Your task to perform on an android device: Open Google Maps and go to "Timeline" Image 0: 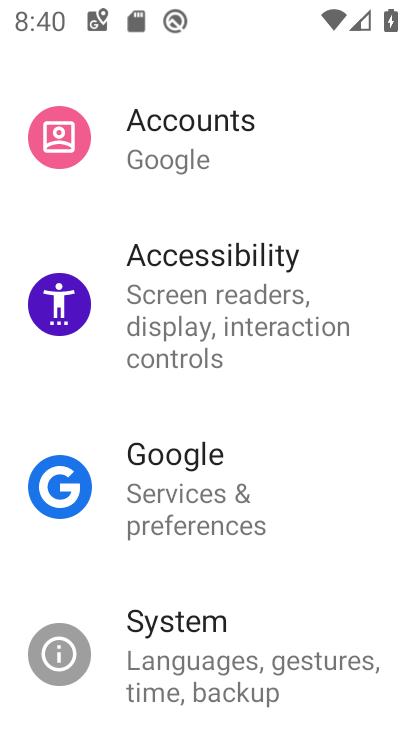
Step 0: drag from (204, 633) to (273, 64)
Your task to perform on an android device: Open Google Maps and go to "Timeline" Image 1: 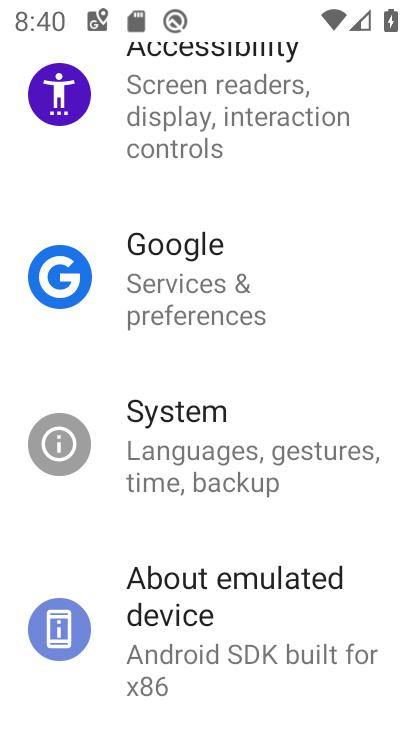
Step 1: press back button
Your task to perform on an android device: Open Google Maps and go to "Timeline" Image 2: 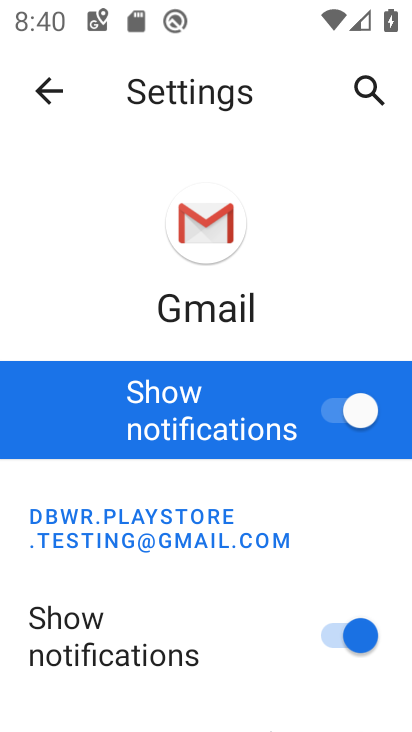
Step 2: press back button
Your task to perform on an android device: Open Google Maps and go to "Timeline" Image 3: 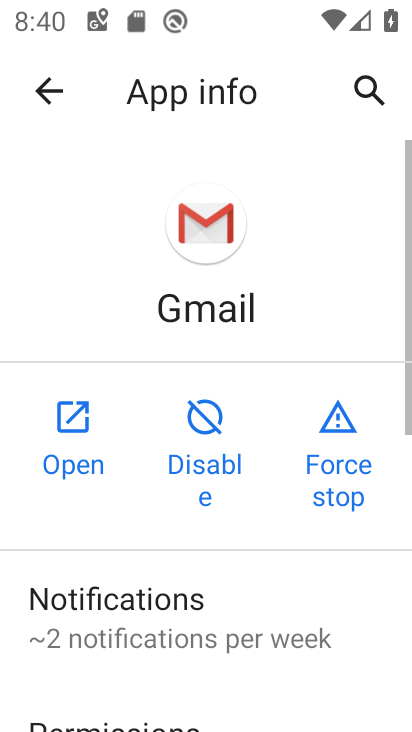
Step 3: press back button
Your task to perform on an android device: Open Google Maps and go to "Timeline" Image 4: 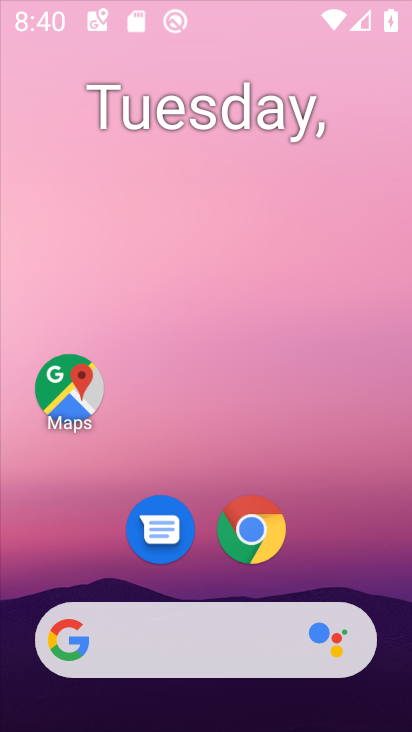
Step 4: press back button
Your task to perform on an android device: Open Google Maps and go to "Timeline" Image 5: 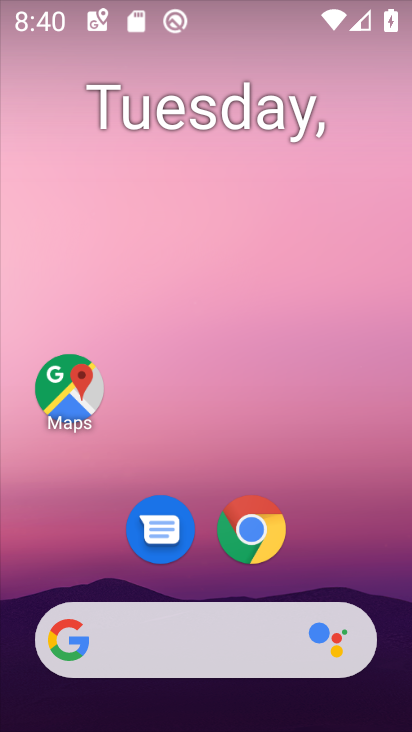
Step 5: click (74, 385)
Your task to perform on an android device: Open Google Maps and go to "Timeline" Image 6: 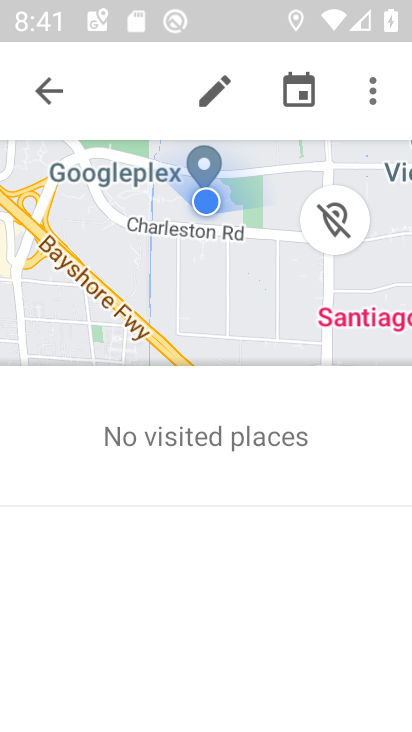
Step 6: task complete